Your task to perform on an android device: Open Google Image 0: 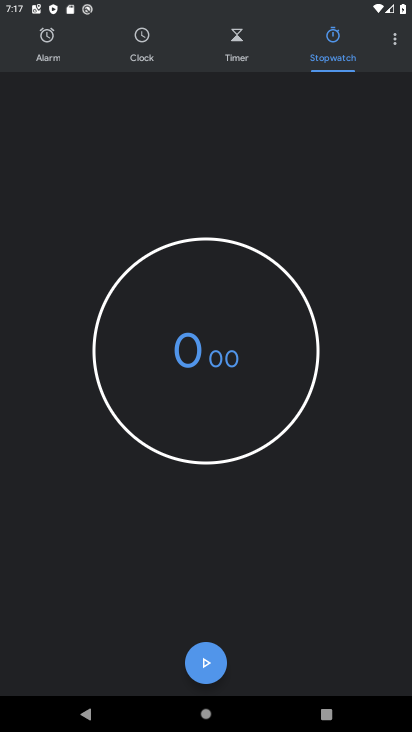
Step 0: press home button
Your task to perform on an android device: Open Google Image 1: 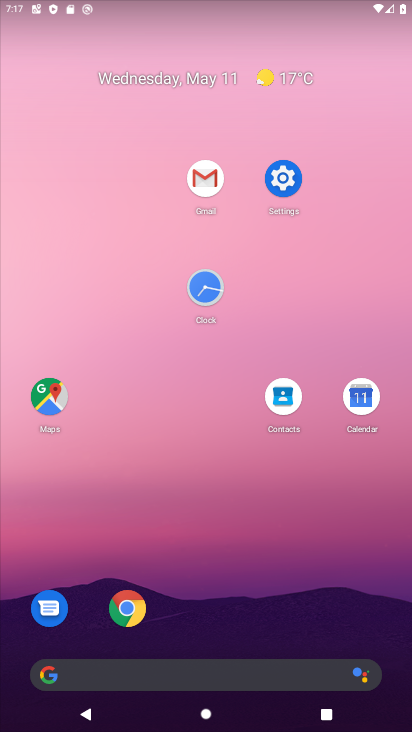
Step 1: click (128, 597)
Your task to perform on an android device: Open Google Image 2: 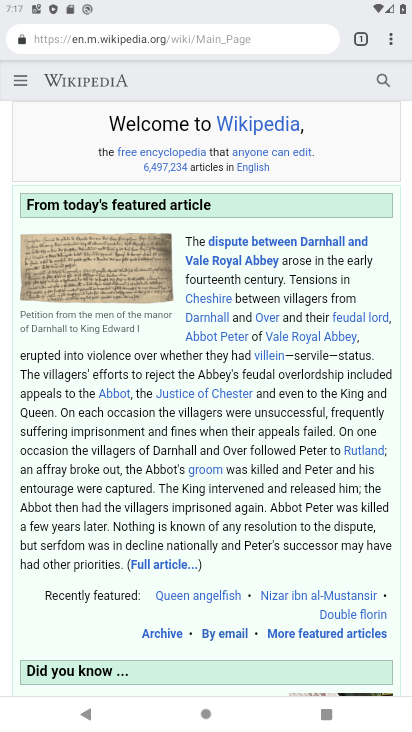
Step 2: click (271, 46)
Your task to perform on an android device: Open Google Image 3: 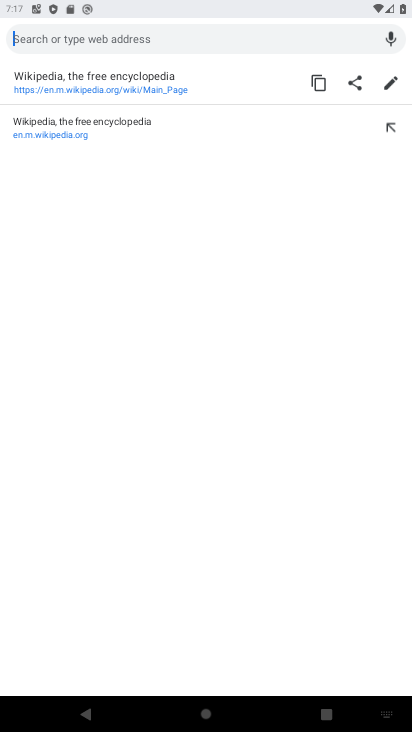
Step 3: type "google.com"
Your task to perform on an android device: Open Google Image 4: 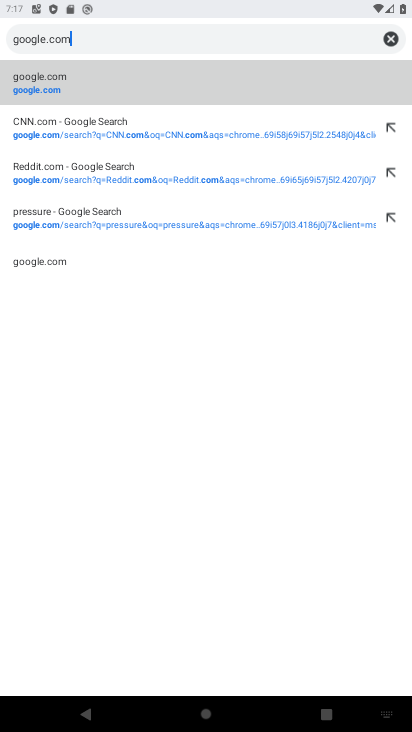
Step 4: click (212, 90)
Your task to perform on an android device: Open Google Image 5: 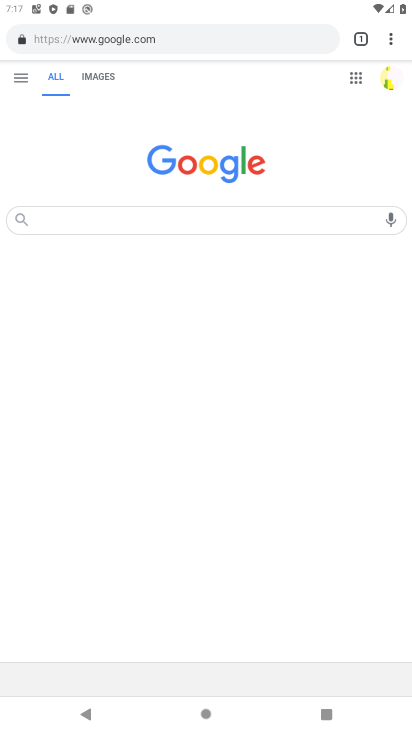
Step 5: task complete